Your task to perform on an android device: Empty the shopping cart on ebay. Search for macbook air on ebay, select the first entry, add it to the cart, then select checkout. Image 0: 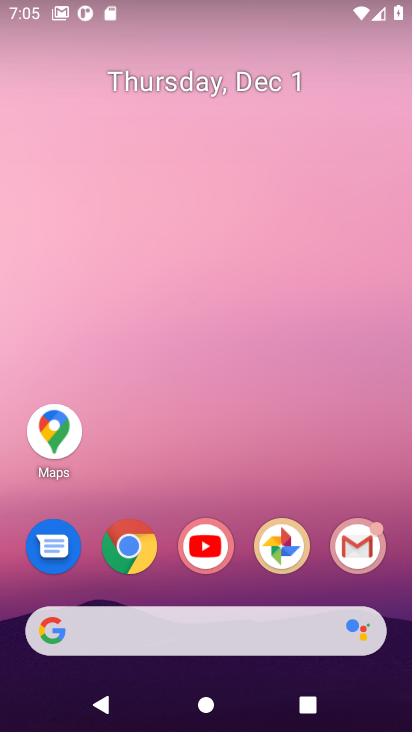
Step 0: click (128, 551)
Your task to perform on an android device: Empty the shopping cart on ebay. Search for macbook air on ebay, select the first entry, add it to the cart, then select checkout. Image 1: 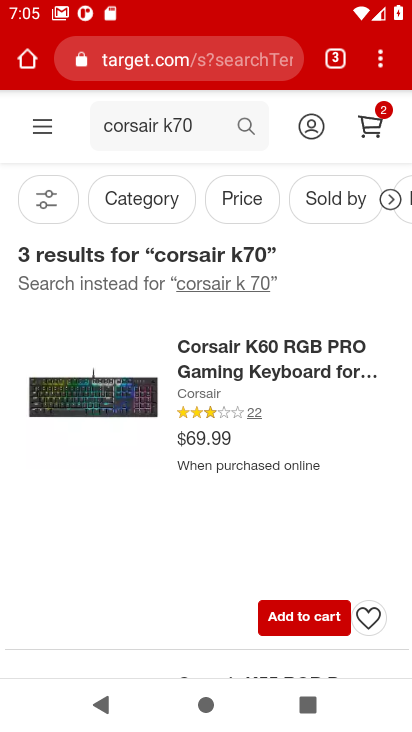
Step 1: click (117, 66)
Your task to perform on an android device: Empty the shopping cart on ebay. Search for macbook air on ebay, select the first entry, add it to the cart, then select checkout. Image 2: 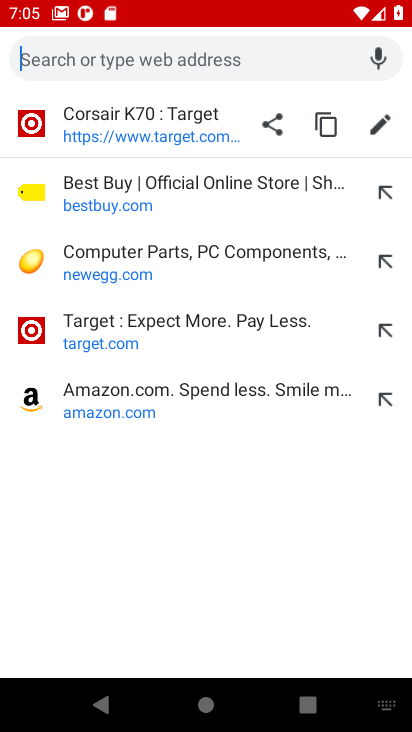
Step 2: type "ebay.com"
Your task to perform on an android device: Empty the shopping cart on ebay. Search for macbook air on ebay, select the first entry, add it to the cart, then select checkout. Image 3: 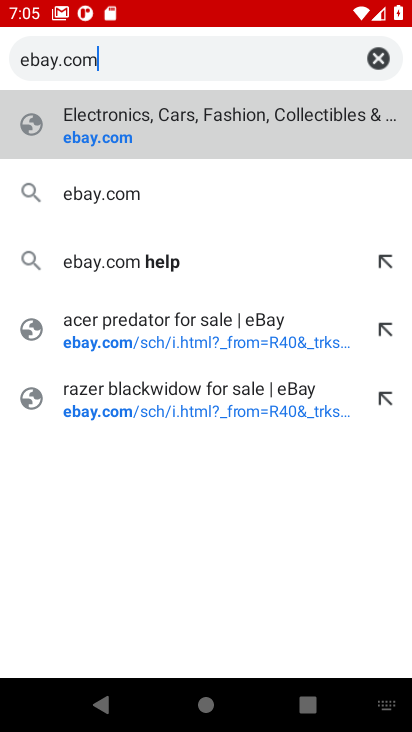
Step 3: click (93, 139)
Your task to perform on an android device: Empty the shopping cart on ebay. Search for macbook air on ebay, select the first entry, add it to the cart, then select checkout. Image 4: 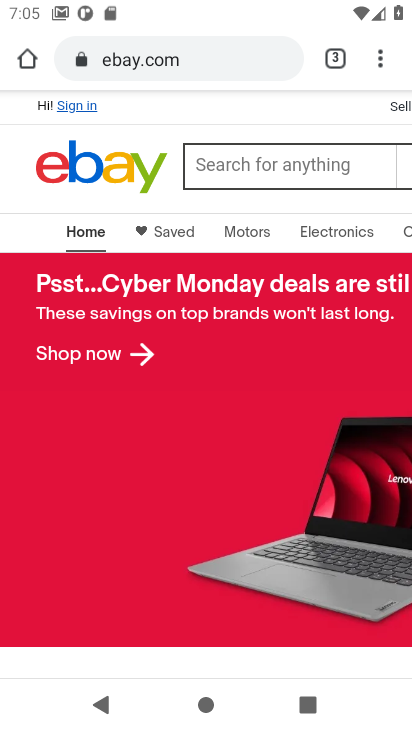
Step 4: drag from (277, 209) to (45, 218)
Your task to perform on an android device: Empty the shopping cart on ebay. Search for macbook air on ebay, select the first entry, add it to the cart, then select checkout. Image 5: 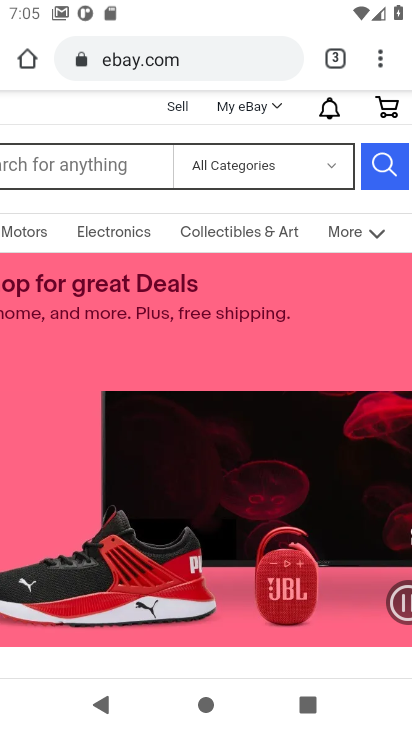
Step 5: click (390, 112)
Your task to perform on an android device: Empty the shopping cart on ebay. Search for macbook air on ebay, select the first entry, add it to the cart, then select checkout. Image 6: 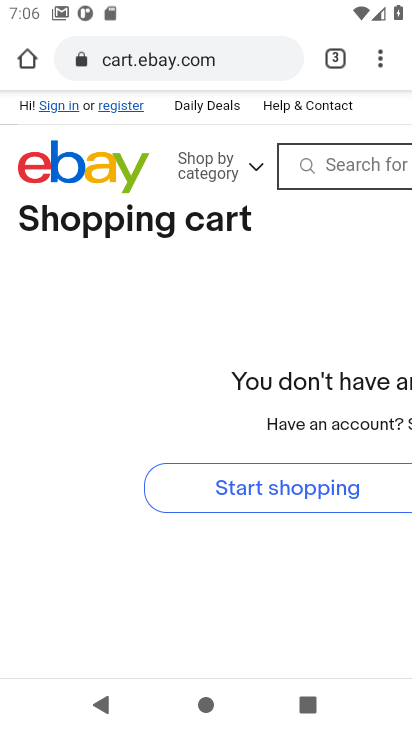
Step 6: click (323, 170)
Your task to perform on an android device: Empty the shopping cart on ebay. Search for macbook air on ebay, select the first entry, add it to the cart, then select checkout. Image 7: 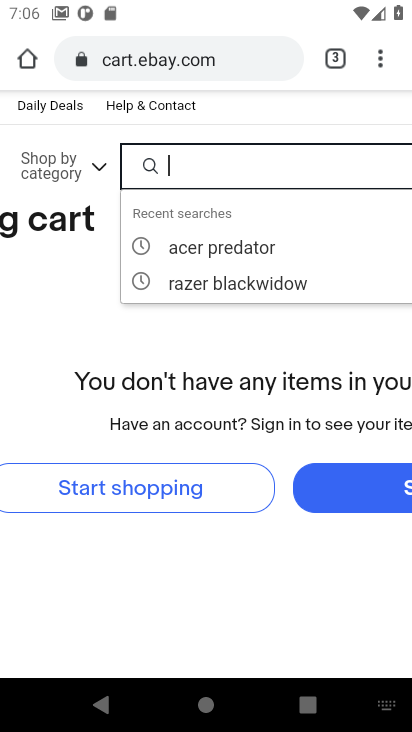
Step 7: type "macbook air"
Your task to perform on an android device: Empty the shopping cart on ebay. Search for macbook air on ebay, select the first entry, add it to the cart, then select checkout. Image 8: 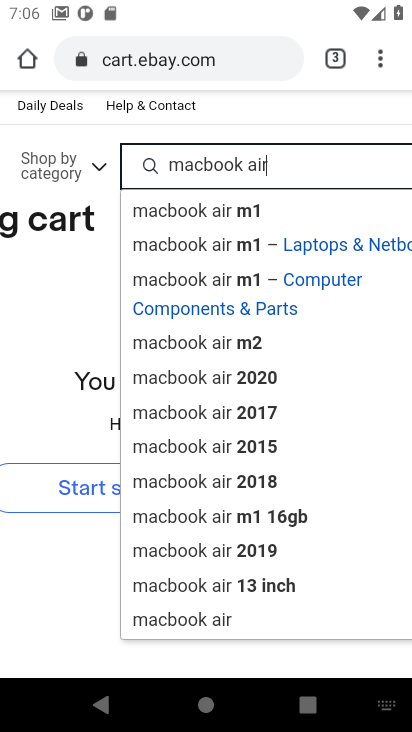
Step 8: click (211, 622)
Your task to perform on an android device: Empty the shopping cart on ebay. Search for macbook air on ebay, select the first entry, add it to the cart, then select checkout. Image 9: 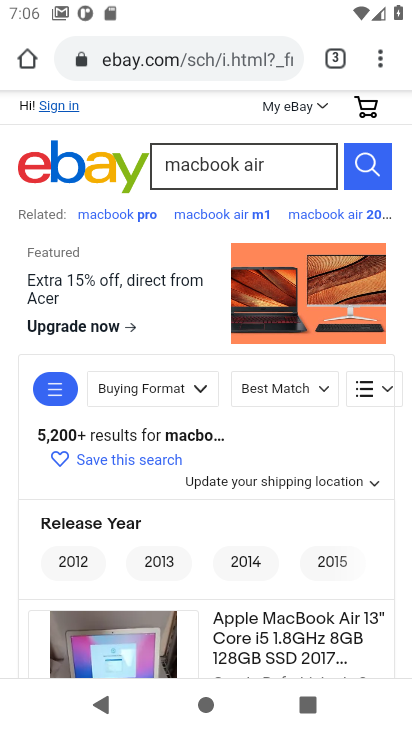
Step 9: drag from (210, 584) to (225, 346)
Your task to perform on an android device: Empty the shopping cart on ebay. Search for macbook air on ebay, select the first entry, add it to the cart, then select checkout. Image 10: 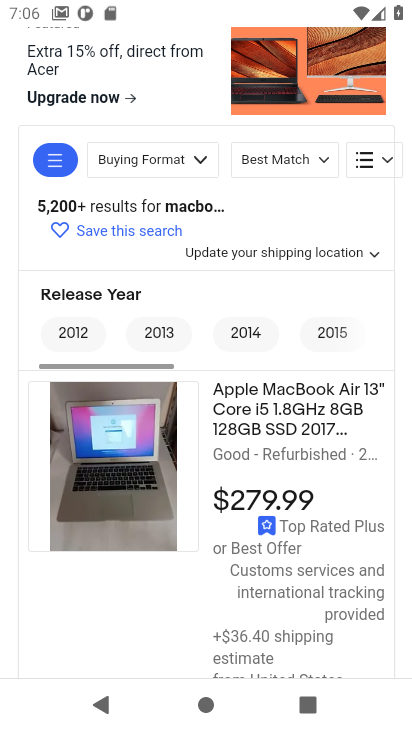
Step 10: drag from (209, 544) to (206, 314)
Your task to perform on an android device: Empty the shopping cart on ebay. Search for macbook air on ebay, select the first entry, add it to the cart, then select checkout. Image 11: 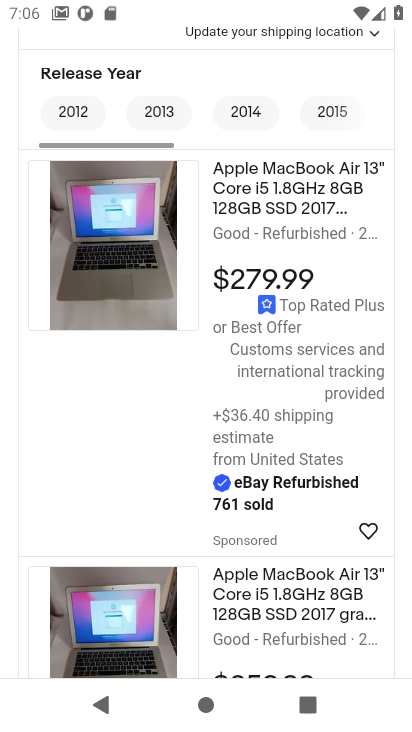
Step 11: click (283, 215)
Your task to perform on an android device: Empty the shopping cart on ebay. Search for macbook air on ebay, select the first entry, add it to the cart, then select checkout. Image 12: 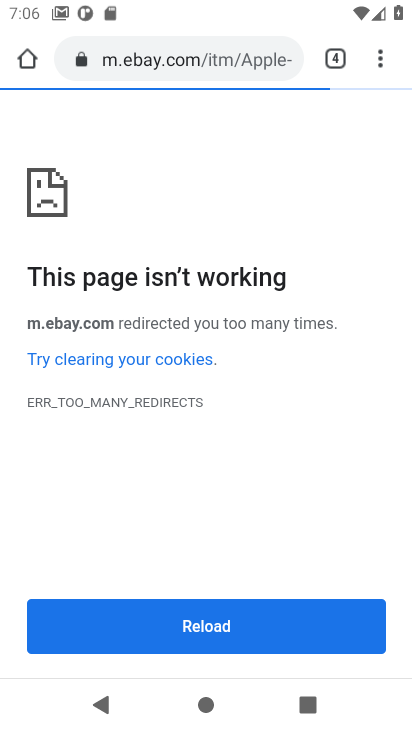
Step 12: task complete